Your task to perform on an android device: Search for flights from NYC to San Diego Image 0: 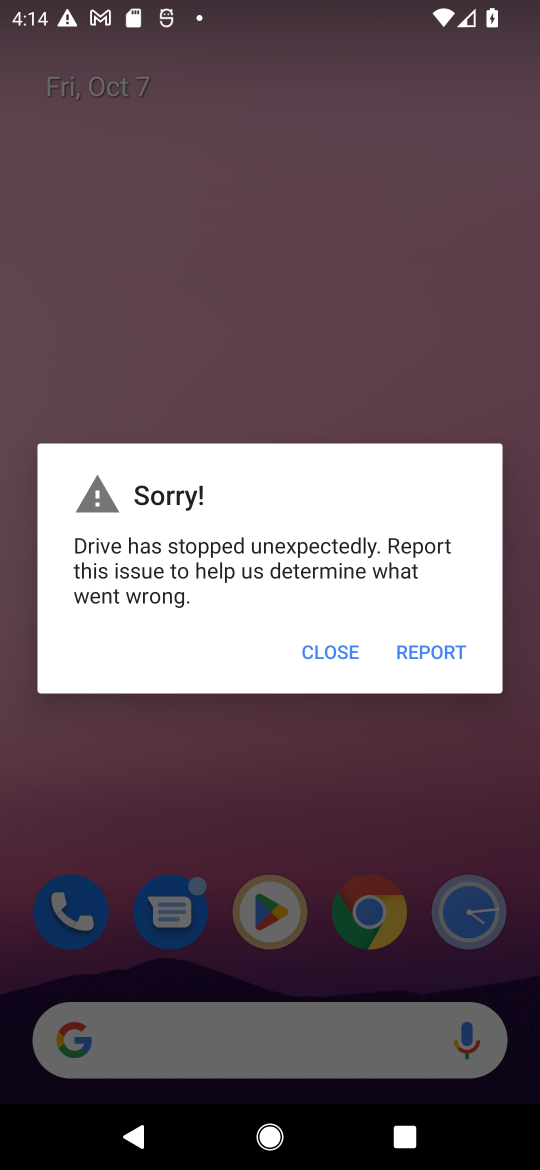
Step 0: click (331, 648)
Your task to perform on an android device: Search for flights from NYC to San Diego Image 1: 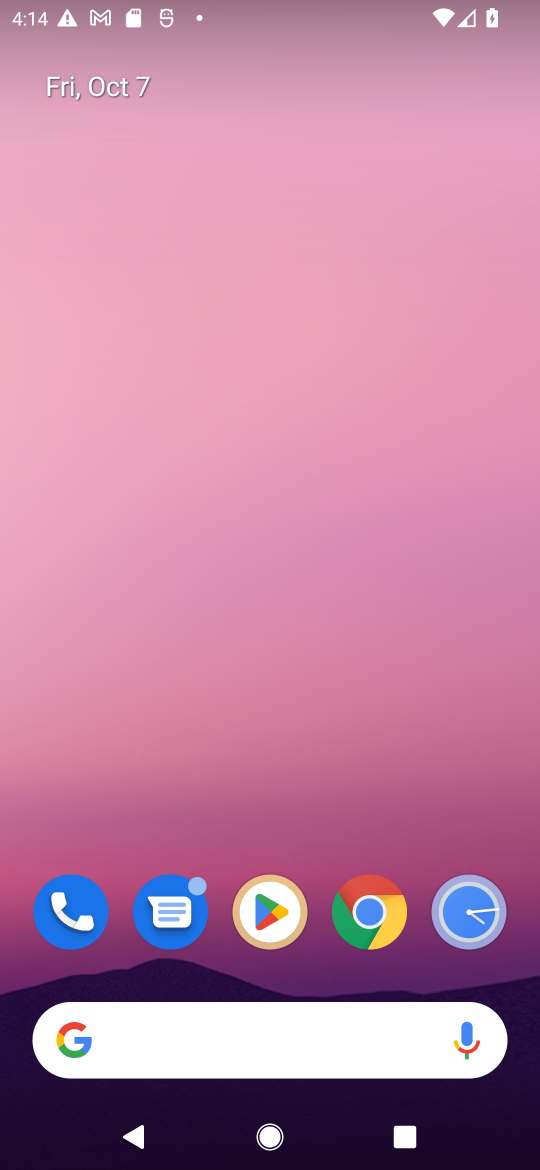
Step 1: drag from (247, 979) to (296, 254)
Your task to perform on an android device: Search for flights from NYC to San Diego Image 2: 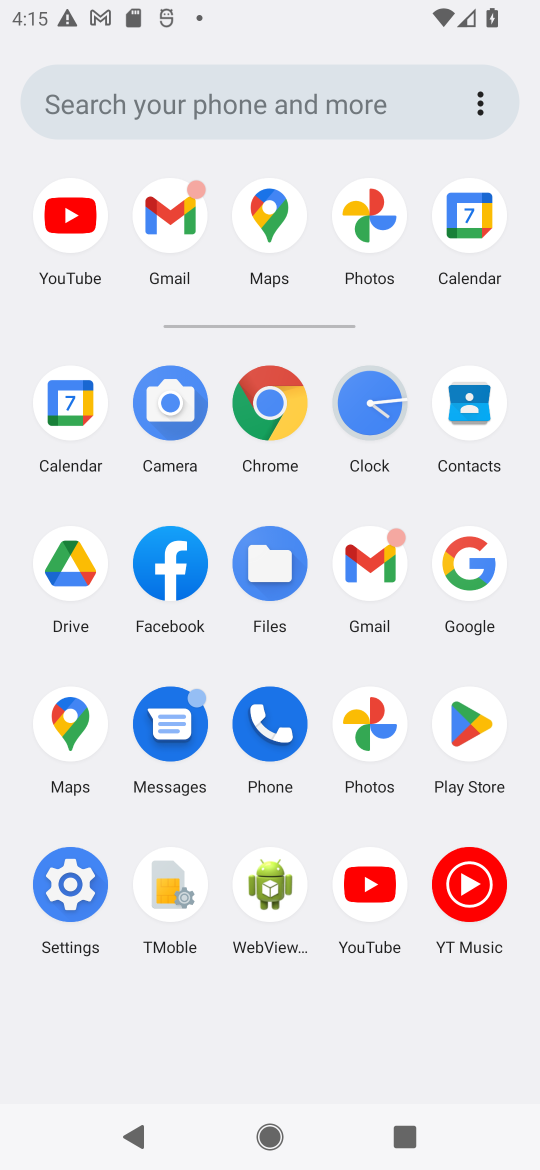
Step 2: click (469, 560)
Your task to perform on an android device: Search for flights from NYC to San Diego Image 3: 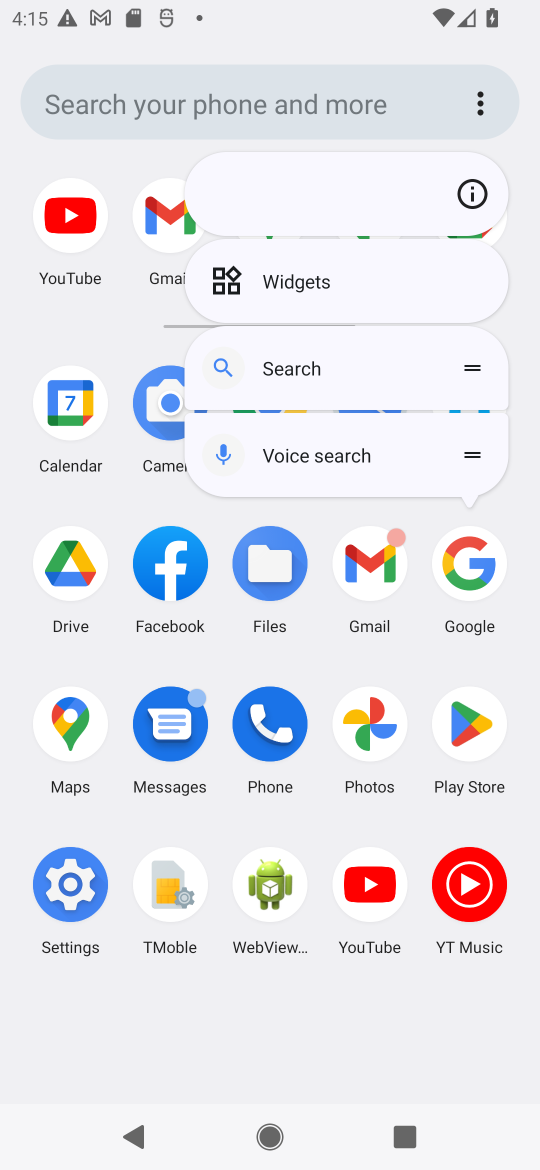
Step 3: click (469, 560)
Your task to perform on an android device: Search for flights from NYC to San Diego Image 4: 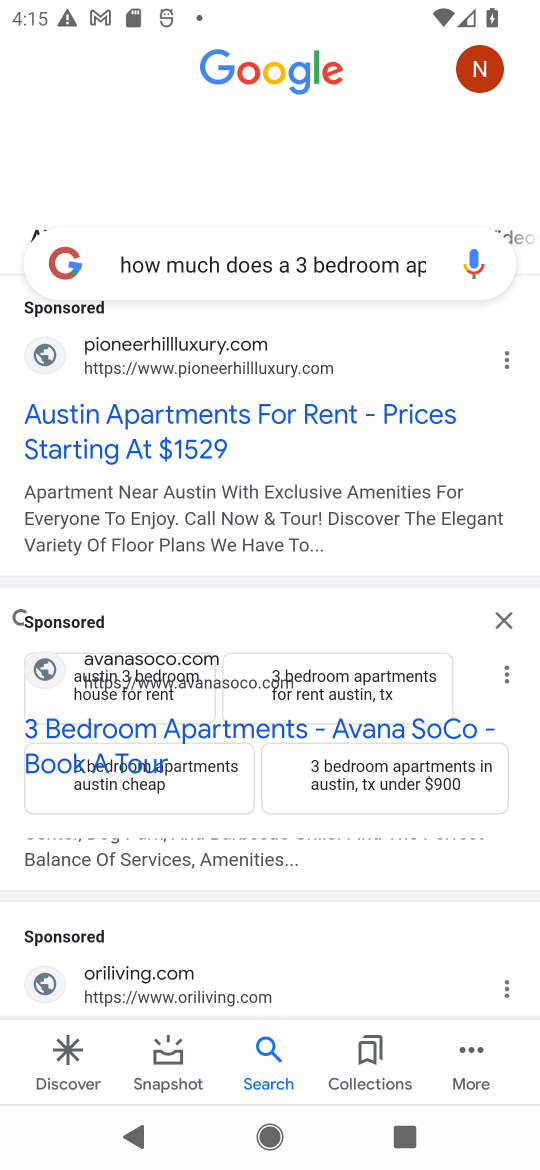
Step 4: click (469, 560)
Your task to perform on an android device: Search for flights from NYC to San Diego Image 5: 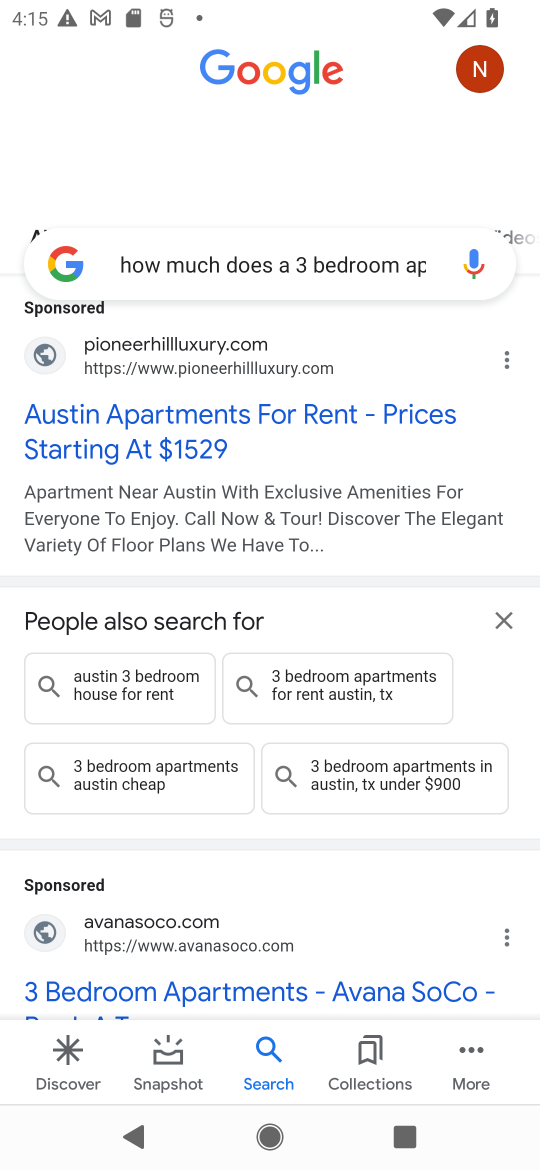
Step 5: click (315, 248)
Your task to perform on an android device: Search for flights from NYC to San Diego Image 6: 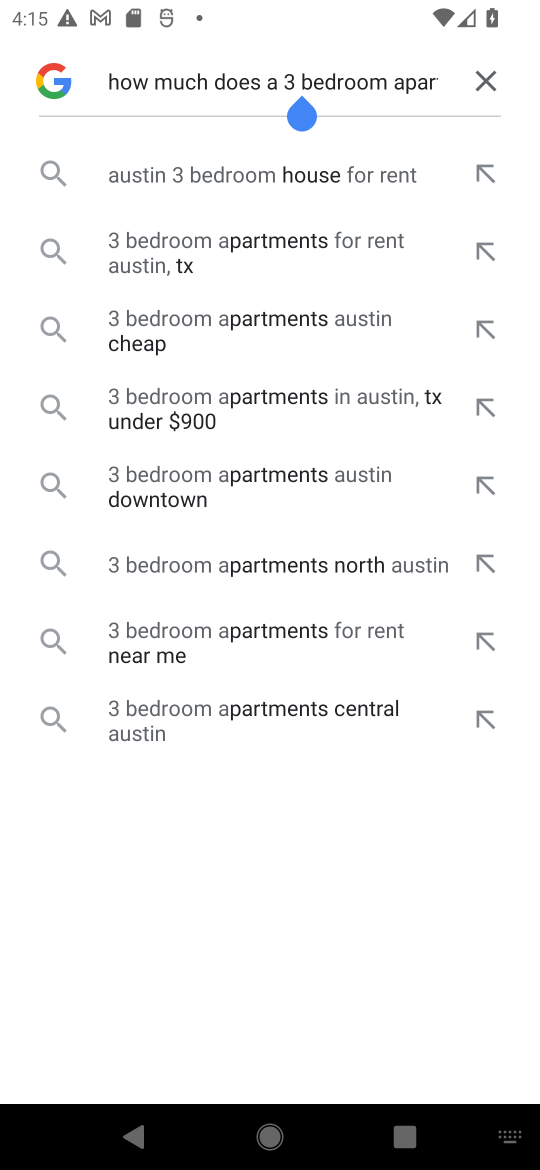
Step 6: click (460, 73)
Your task to perform on an android device: Search for flights from NYC to San Diego Image 7: 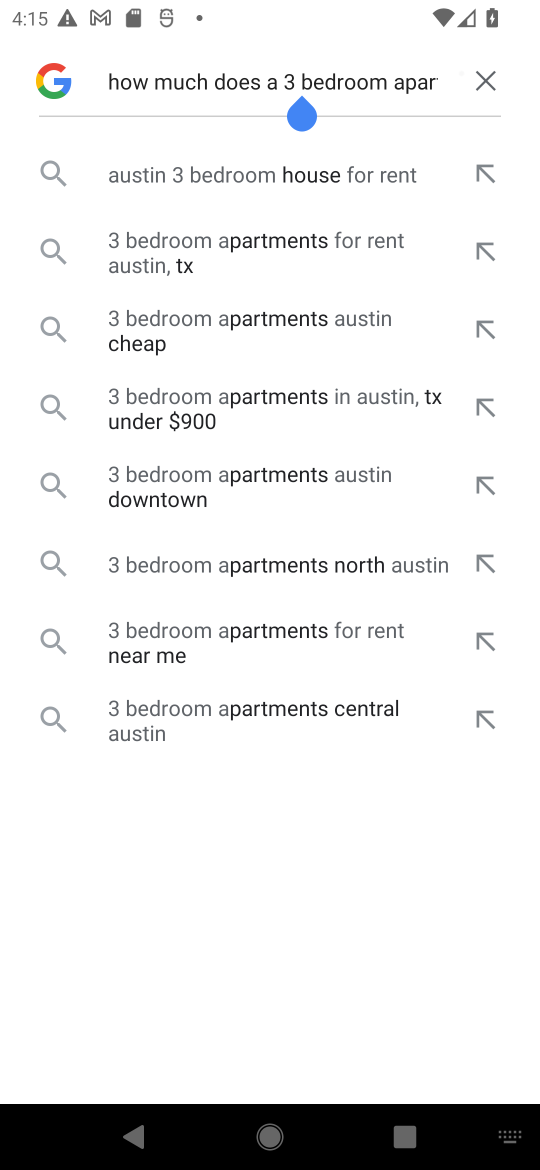
Step 7: click (479, 73)
Your task to perform on an android device: Search for flights from NYC to San Diego Image 8: 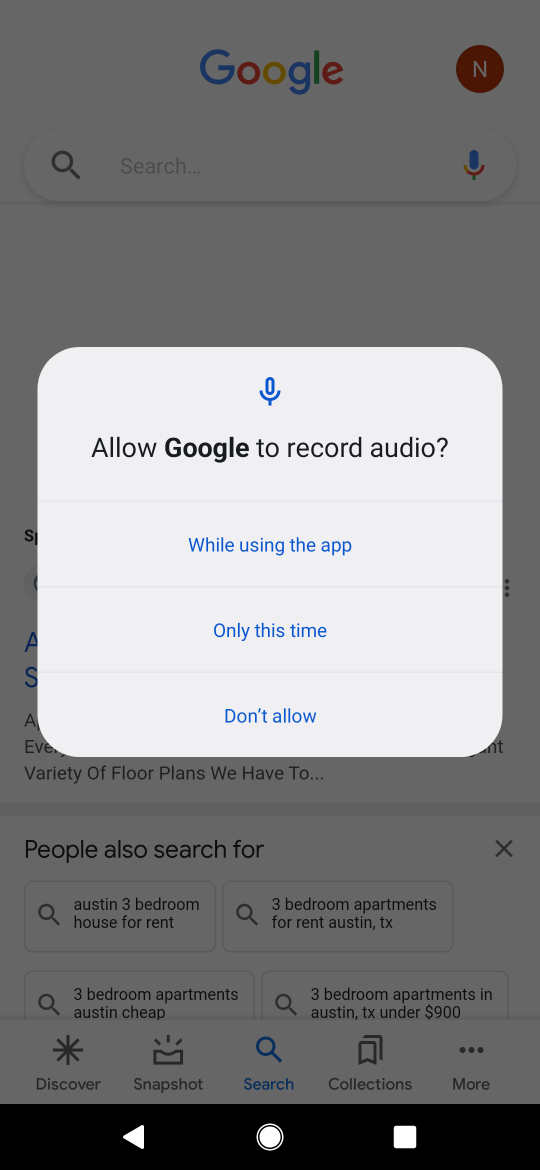
Step 8: click (354, 302)
Your task to perform on an android device: Search for flights from NYC to San Diego Image 9: 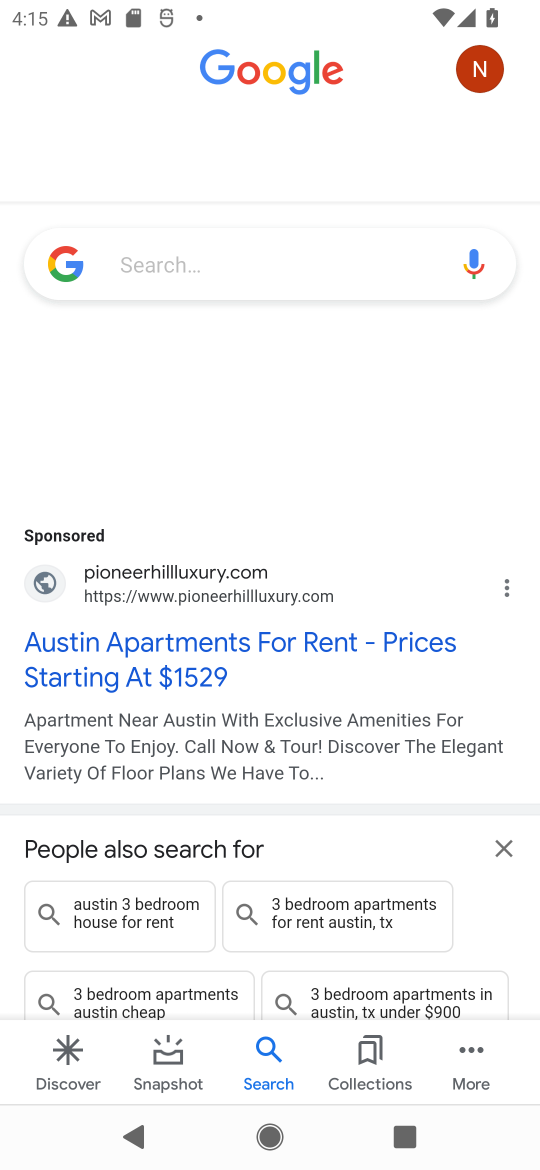
Step 9: click (172, 241)
Your task to perform on an android device: Search for flights from NYC to San Diego Image 10: 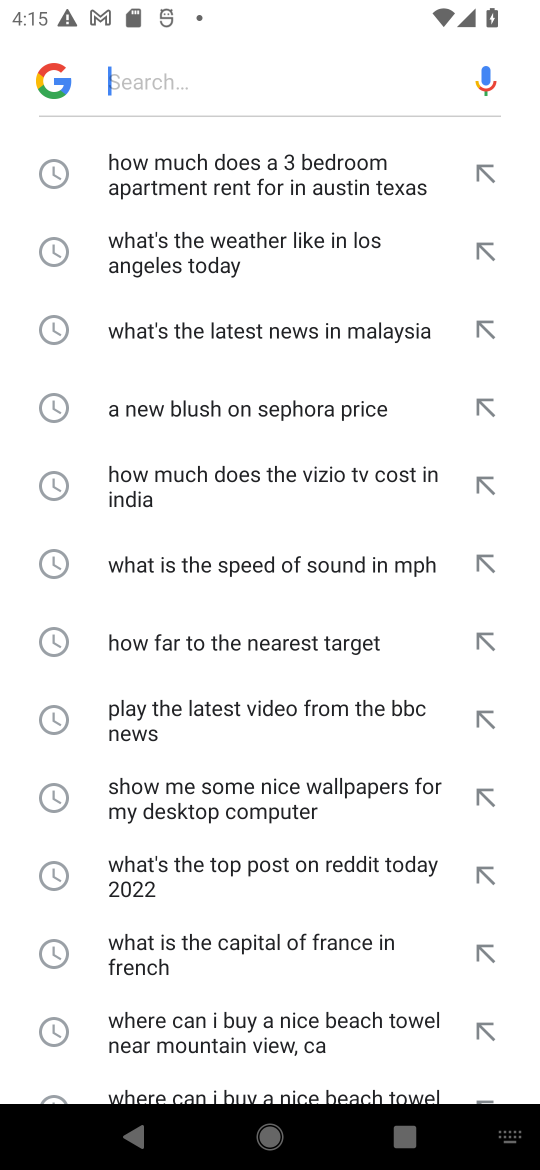
Step 10: type "Search for flights from NYC to San Diego "
Your task to perform on an android device: Search for flights from NYC to San Diego Image 11: 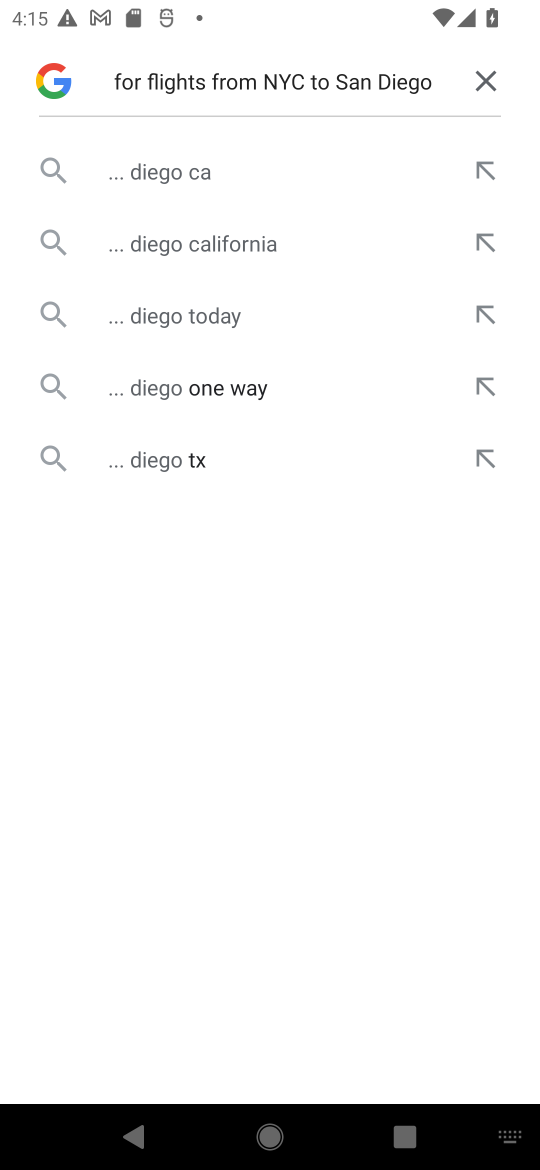
Step 11: click (225, 309)
Your task to perform on an android device: Search for flights from NYC to San Diego Image 12: 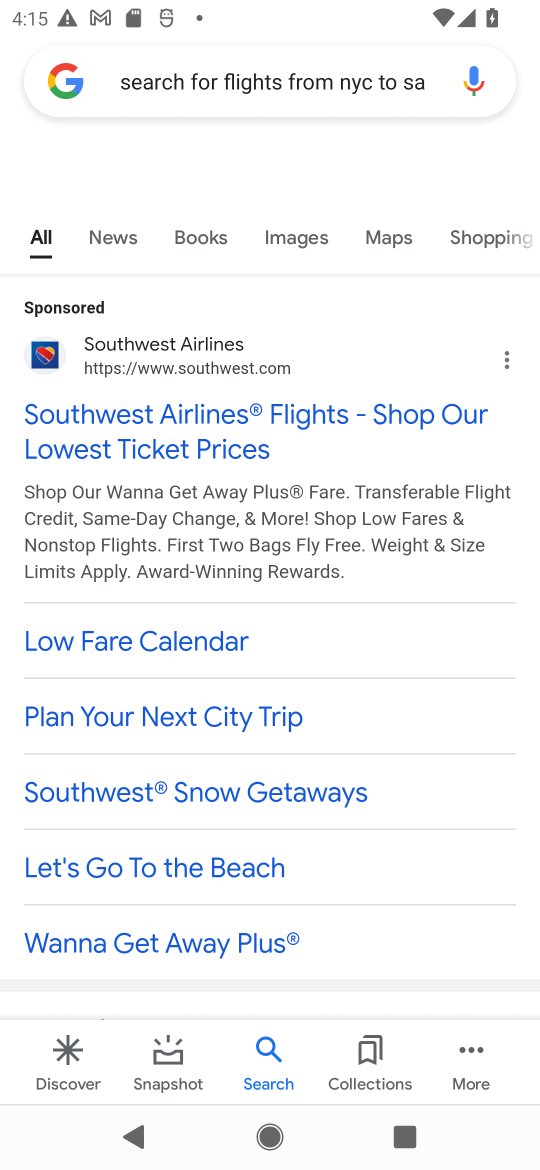
Step 12: click (75, 436)
Your task to perform on an android device: Search for flights from NYC to San Diego Image 13: 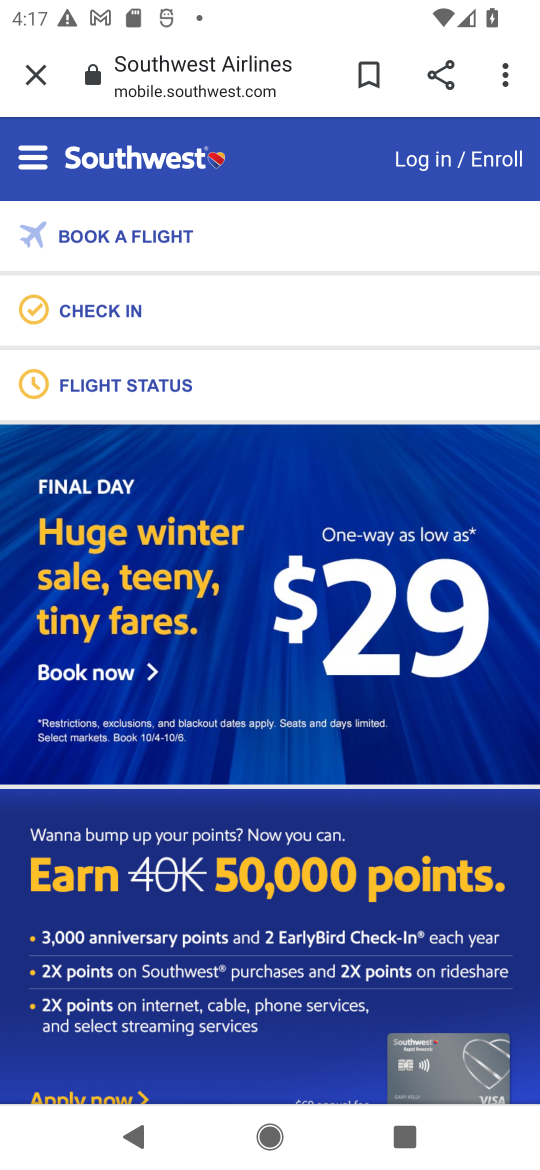
Step 13: task complete